Your task to perform on an android device: turn on notifications settings in the gmail app Image 0: 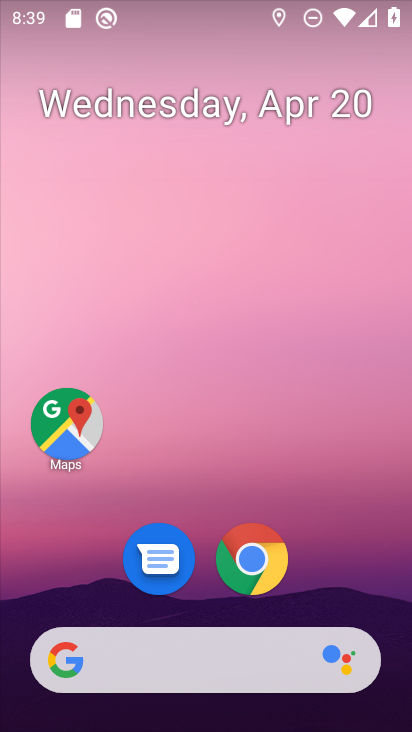
Step 0: drag from (393, 629) to (299, 116)
Your task to perform on an android device: turn on notifications settings in the gmail app Image 1: 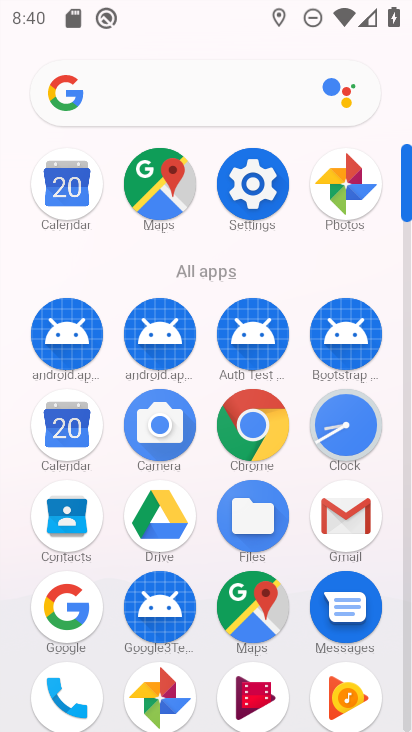
Step 1: click (408, 709)
Your task to perform on an android device: turn on notifications settings in the gmail app Image 2: 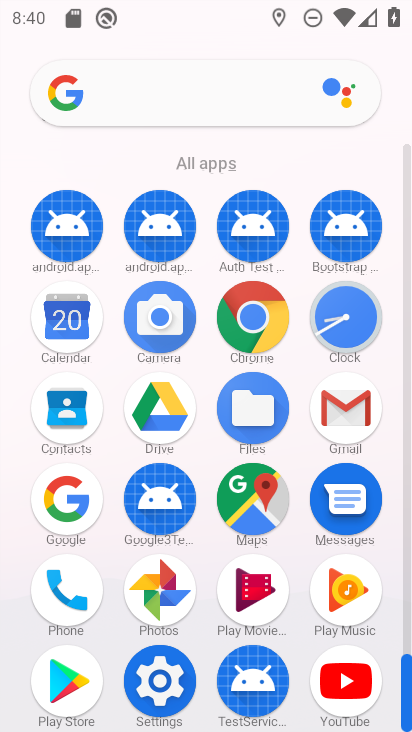
Step 2: click (344, 409)
Your task to perform on an android device: turn on notifications settings in the gmail app Image 3: 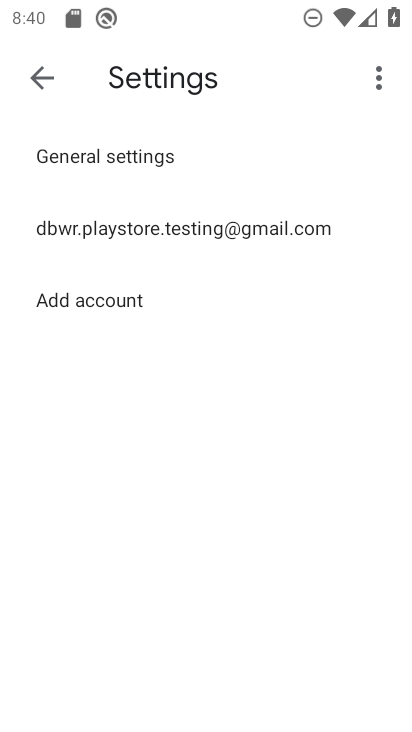
Step 3: click (132, 225)
Your task to perform on an android device: turn on notifications settings in the gmail app Image 4: 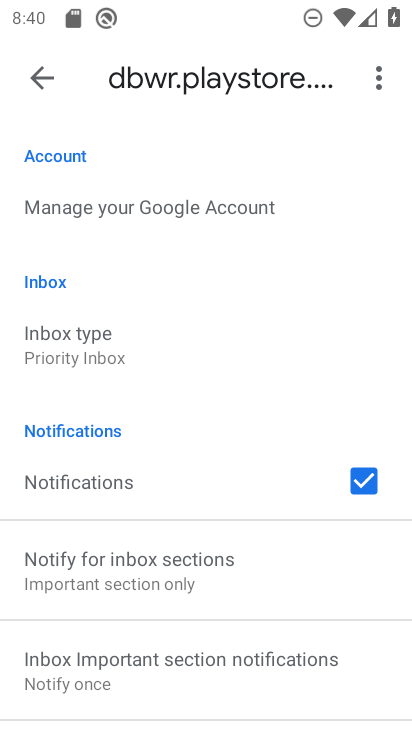
Step 4: drag from (230, 562) to (252, 220)
Your task to perform on an android device: turn on notifications settings in the gmail app Image 5: 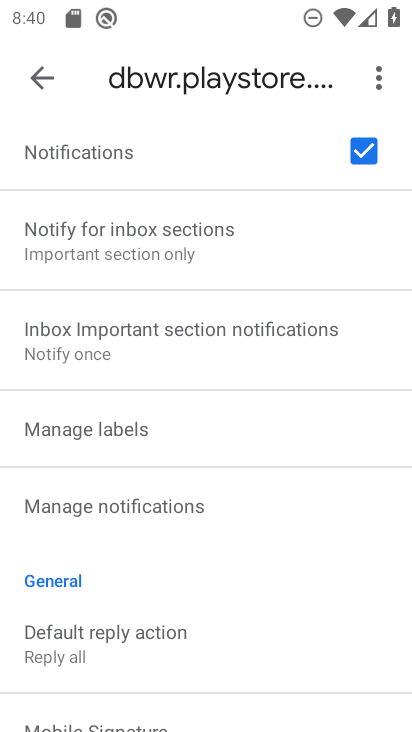
Step 5: click (91, 507)
Your task to perform on an android device: turn on notifications settings in the gmail app Image 6: 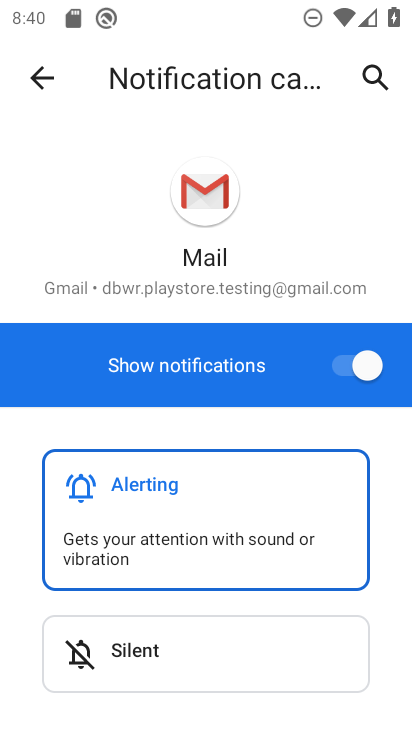
Step 6: task complete